Your task to perform on an android device: turn off javascript in the chrome app Image 0: 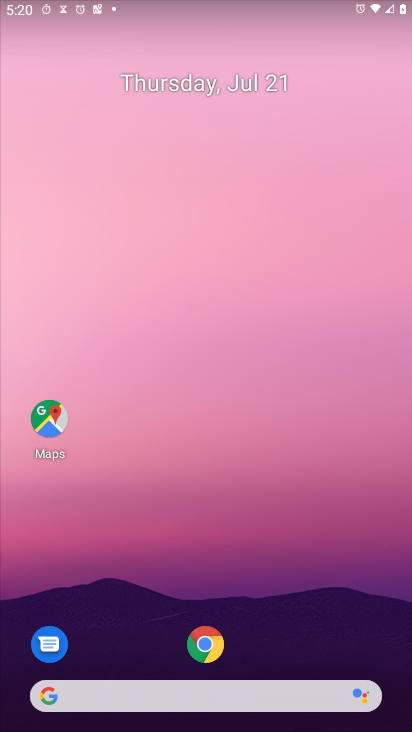
Step 0: press home button
Your task to perform on an android device: turn off javascript in the chrome app Image 1: 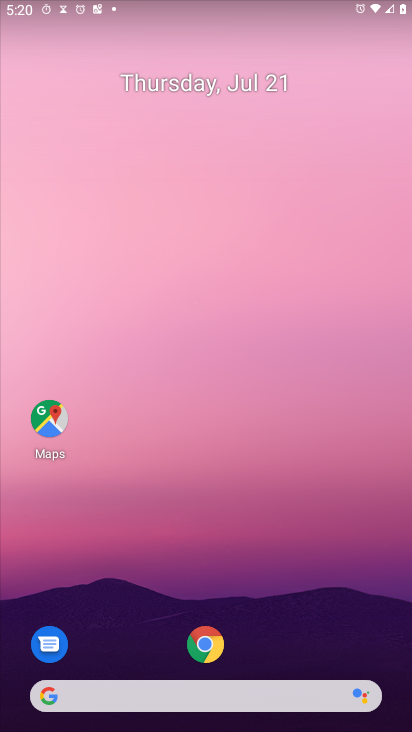
Step 1: click (204, 641)
Your task to perform on an android device: turn off javascript in the chrome app Image 2: 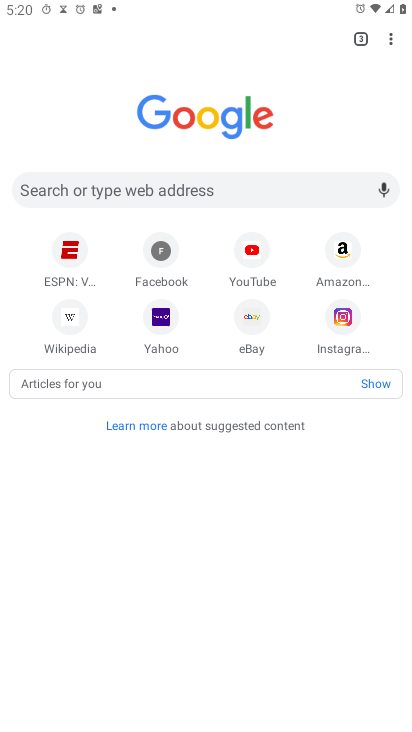
Step 2: drag from (386, 34) to (252, 378)
Your task to perform on an android device: turn off javascript in the chrome app Image 3: 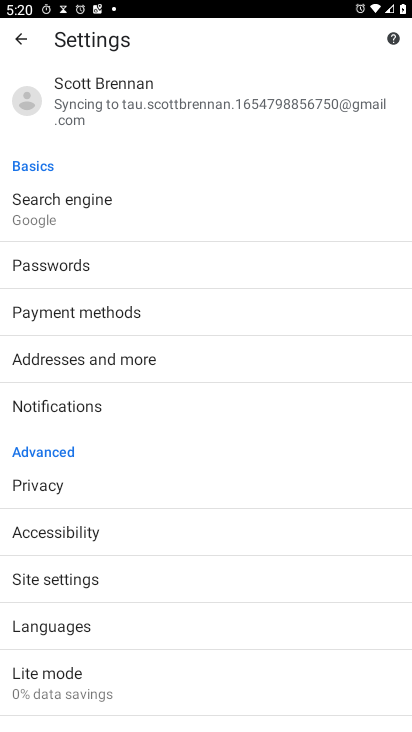
Step 3: click (59, 581)
Your task to perform on an android device: turn off javascript in the chrome app Image 4: 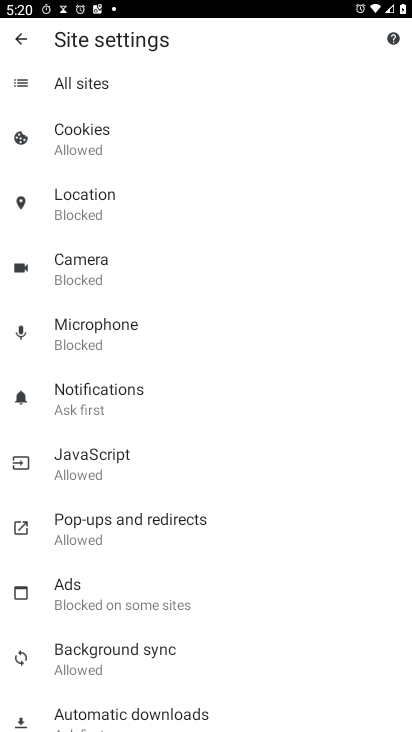
Step 4: click (73, 467)
Your task to perform on an android device: turn off javascript in the chrome app Image 5: 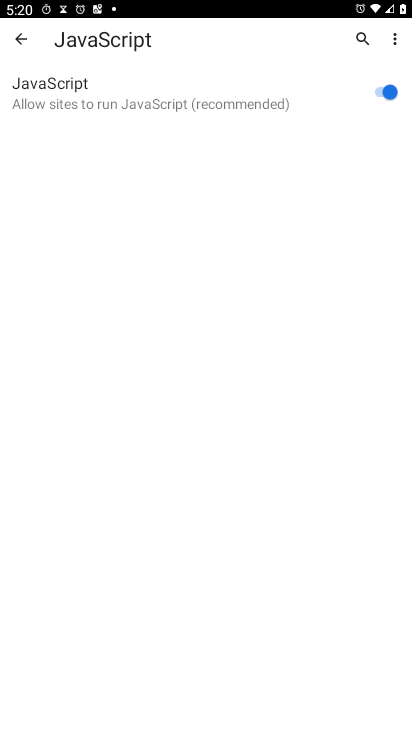
Step 5: click (91, 436)
Your task to perform on an android device: turn off javascript in the chrome app Image 6: 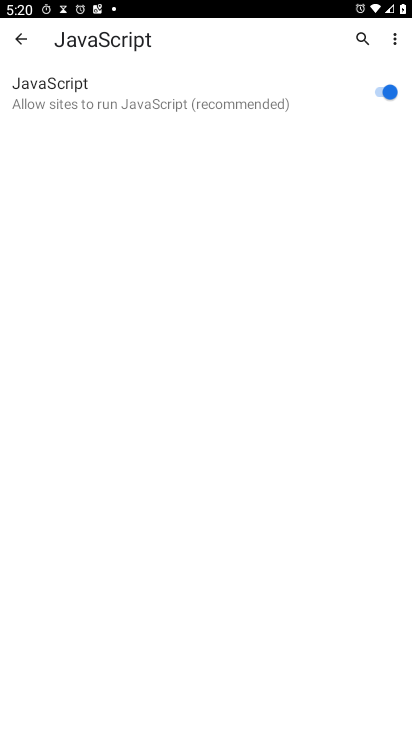
Step 6: click (91, 436)
Your task to perform on an android device: turn off javascript in the chrome app Image 7: 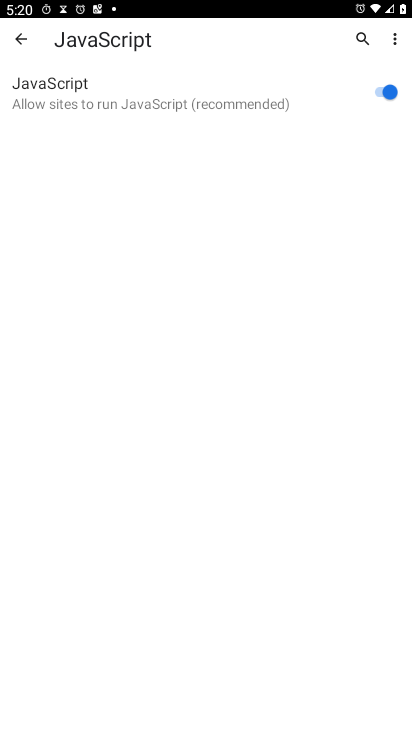
Step 7: click (384, 86)
Your task to perform on an android device: turn off javascript in the chrome app Image 8: 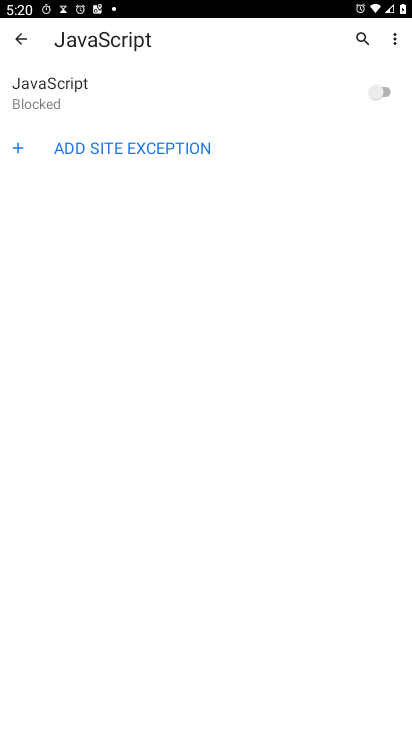
Step 8: task complete